Your task to perform on an android device: see creations saved in the google photos Image 0: 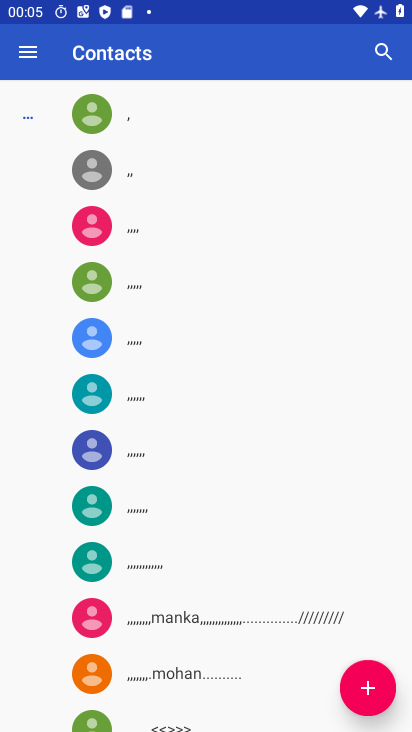
Step 0: press home button
Your task to perform on an android device: see creations saved in the google photos Image 1: 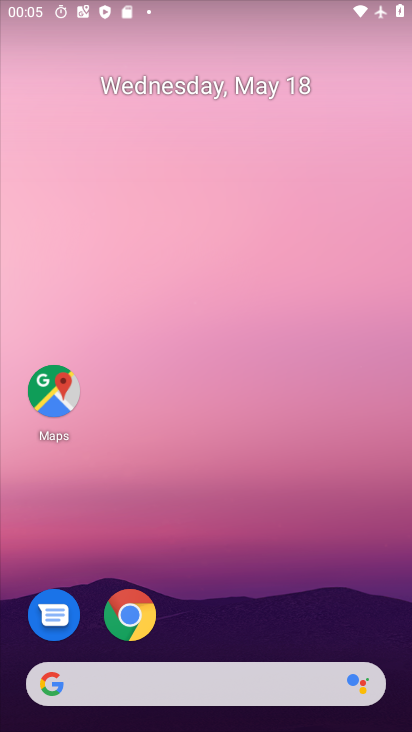
Step 1: drag from (207, 608) to (200, 104)
Your task to perform on an android device: see creations saved in the google photos Image 2: 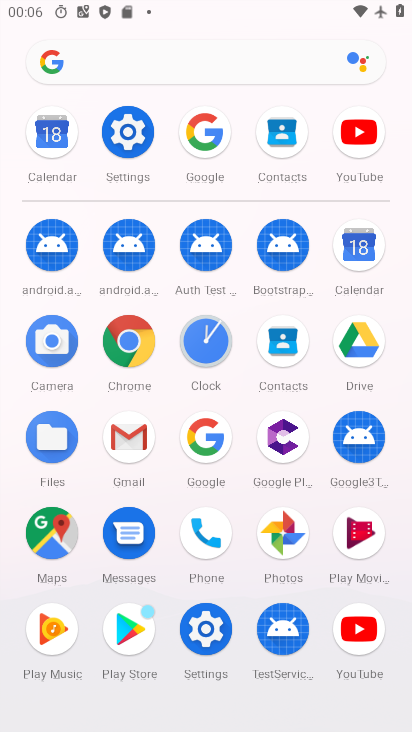
Step 2: click (284, 534)
Your task to perform on an android device: see creations saved in the google photos Image 3: 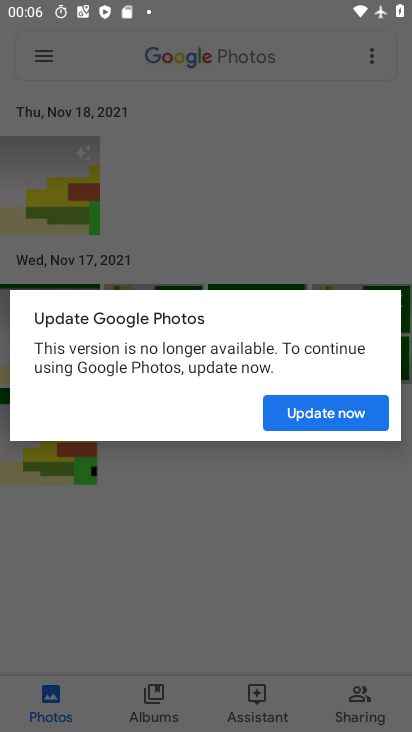
Step 3: click (304, 406)
Your task to perform on an android device: see creations saved in the google photos Image 4: 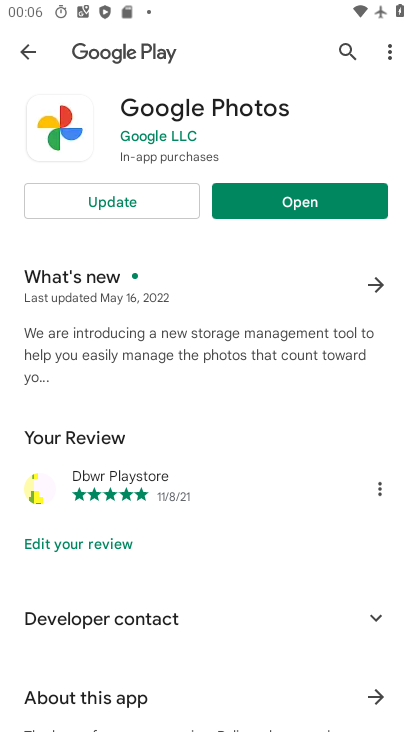
Step 4: click (292, 194)
Your task to perform on an android device: see creations saved in the google photos Image 5: 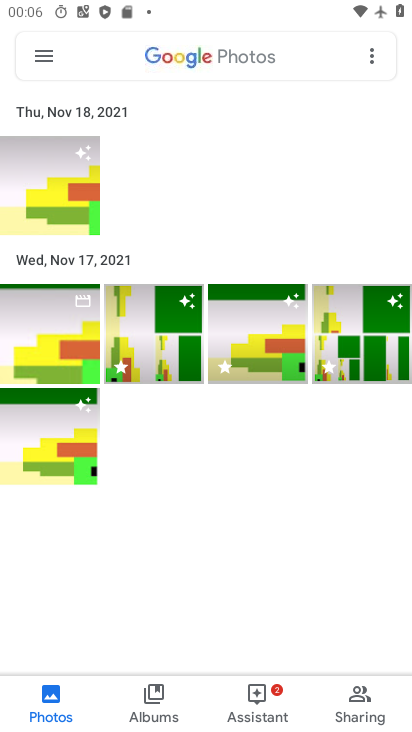
Step 5: click (233, 46)
Your task to perform on an android device: see creations saved in the google photos Image 6: 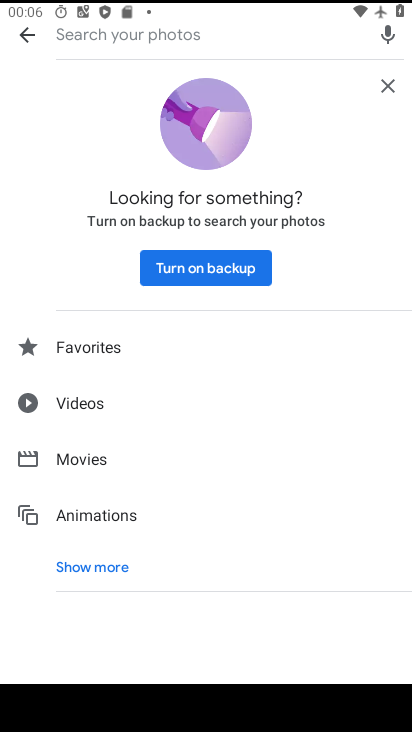
Step 6: click (117, 560)
Your task to perform on an android device: see creations saved in the google photos Image 7: 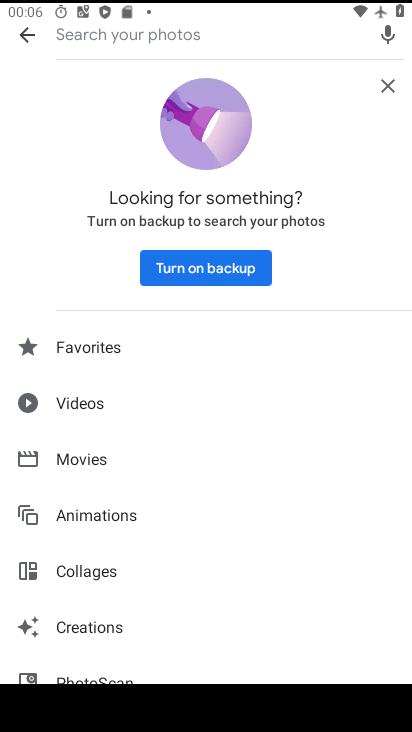
Step 7: click (122, 621)
Your task to perform on an android device: see creations saved in the google photos Image 8: 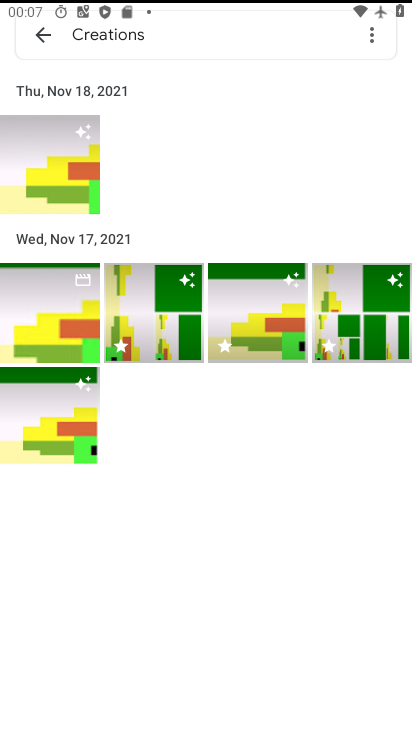
Step 8: task complete